Your task to perform on an android device: What's the news about the US stock market? Image 0: 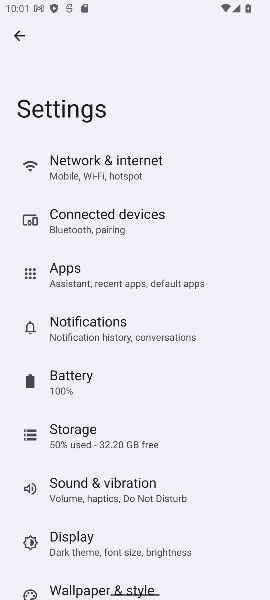
Step 0: press home button
Your task to perform on an android device: What's the news about the US stock market? Image 1: 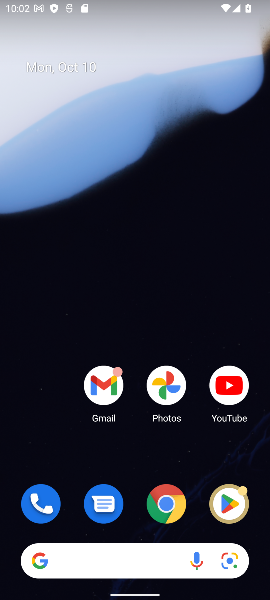
Step 1: click (166, 505)
Your task to perform on an android device: What's the news about the US stock market? Image 2: 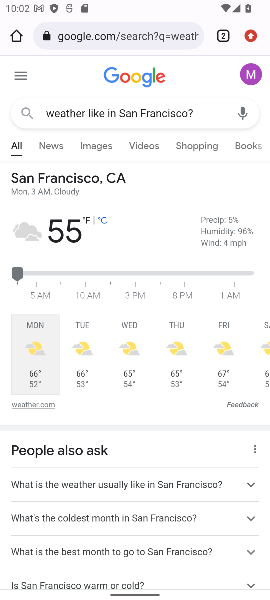
Step 2: click (128, 19)
Your task to perform on an android device: What's the news about the US stock market? Image 3: 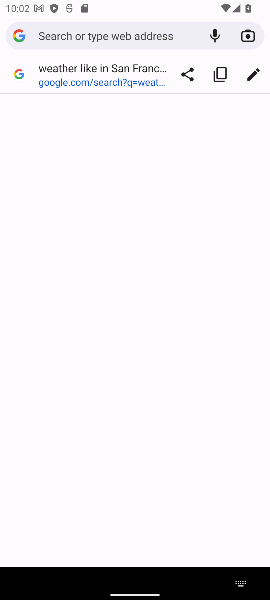
Step 3: type "news about the US stock market"
Your task to perform on an android device: What's the news about the US stock market? Image 4: 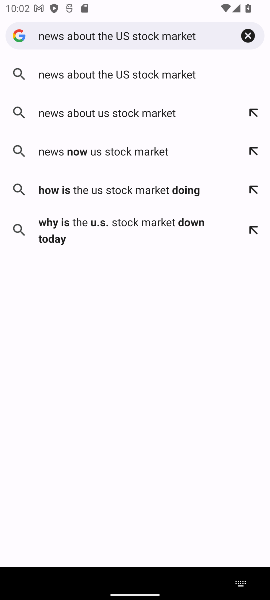
Step 4: click (101, 70)
Your task to perform on an android device: What's the news about the US stock market? Image 5: 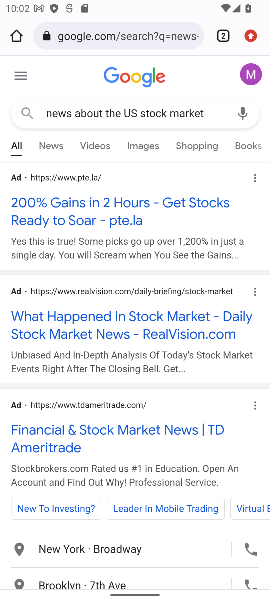
Step 5: click (78, 324)
Your task to perform on an android device: What's the news about the US stock market? Image 6: 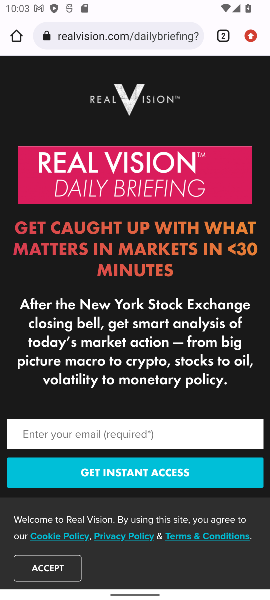
Step 6: click (40, 569)
Your task to perform on an android device: What's the news about the US stock market? Image 7: 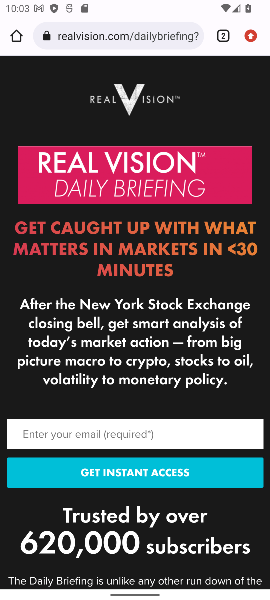
Step 7: drag from (139, 551) to (134, 119)
Your task to perform on an android device: What's the news about the US stock market? Image 8: 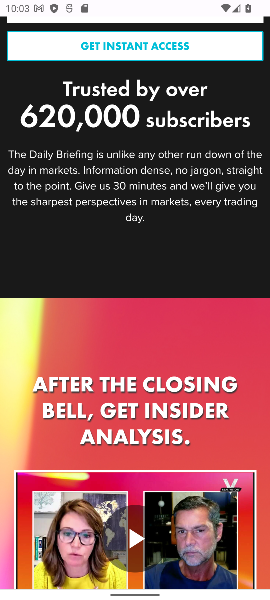
Step 8: drag from (184, 425) to (165, 109)
Your task to perform on an android device: What's the news about the US stock market? Image 9: 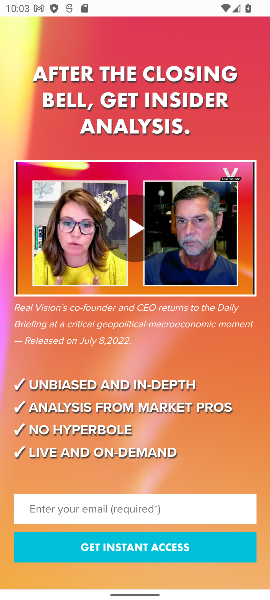
Step 9: drag from (160, 463) to (157, 10)
Your task to perform on an android device: What's the news about the US stock market? Image 10: 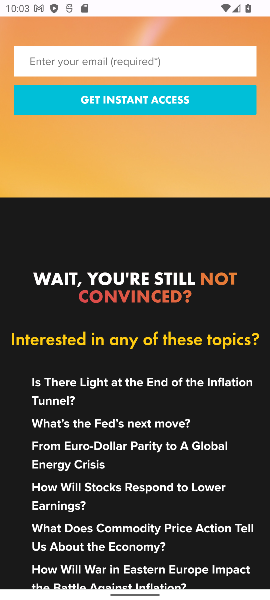
Step 10: press back button
Your task to perform on an android device: What's the news about the US stock market? Image 11: 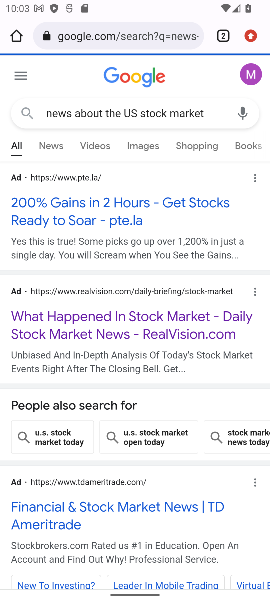
Step 11: drag from (173, 471) to (149, 170)
Your task to perform on an android device: What's the news about the US stock market? Image 12: 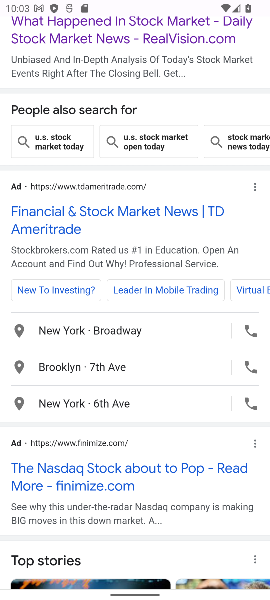
Step 12: click (61, 215)
Your task to perform on an android device: What's the news about the US stock market? Image 13: 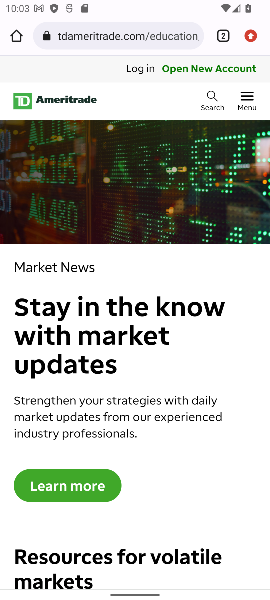
Step 13: task complete